Your task to perform on an android device: What's the weather like in Delhi? Image 0: 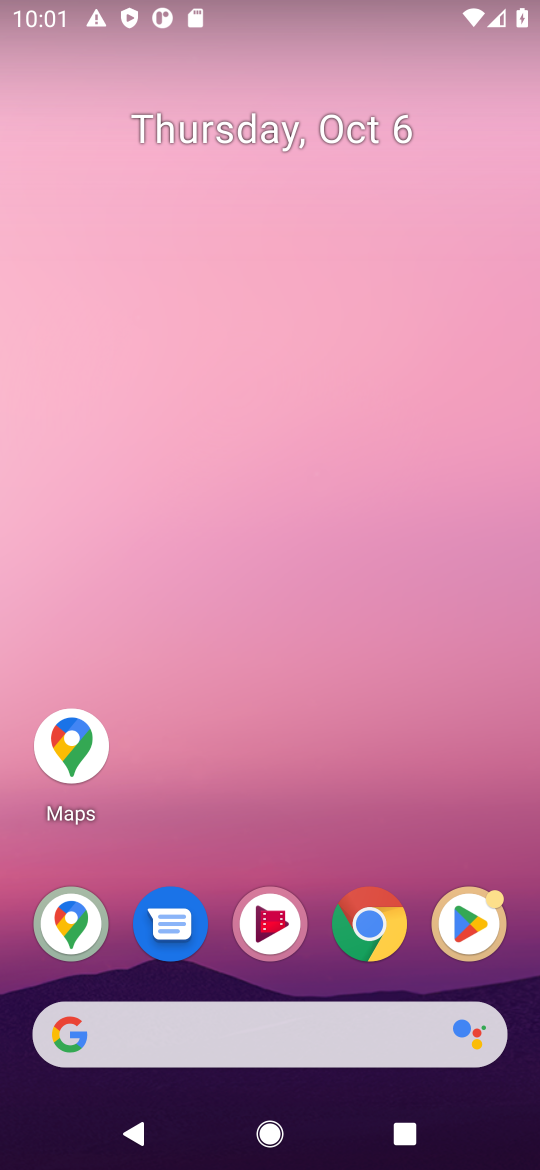
Step 0: click (357, 927)
Your task to perform on an android device: What's the weather like in Delhi? Image 1: 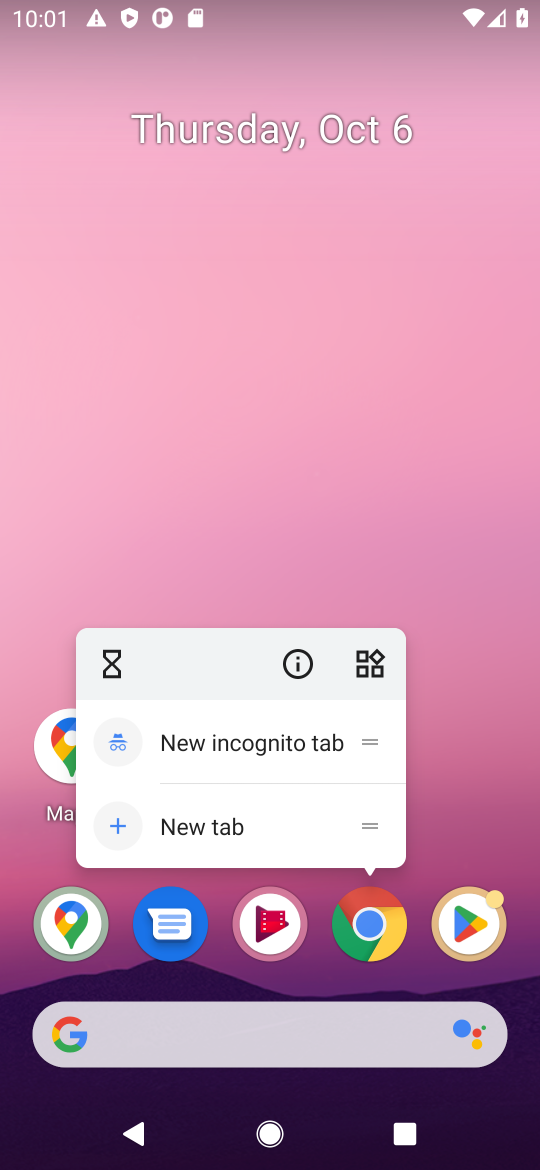
Step 1: click (363, 934)
Your task to perform on an android device: What's the weather like in Delhi? Image 2: 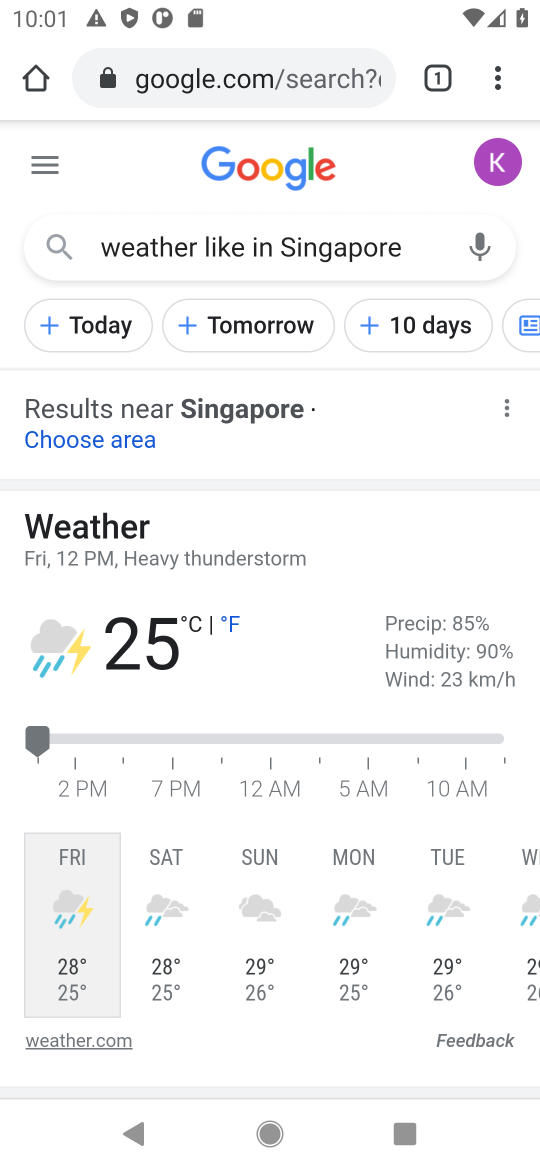
Step 2: click (293, 66)
Your task to perform on an android device: What's the weather like in Delhi? Image 3: 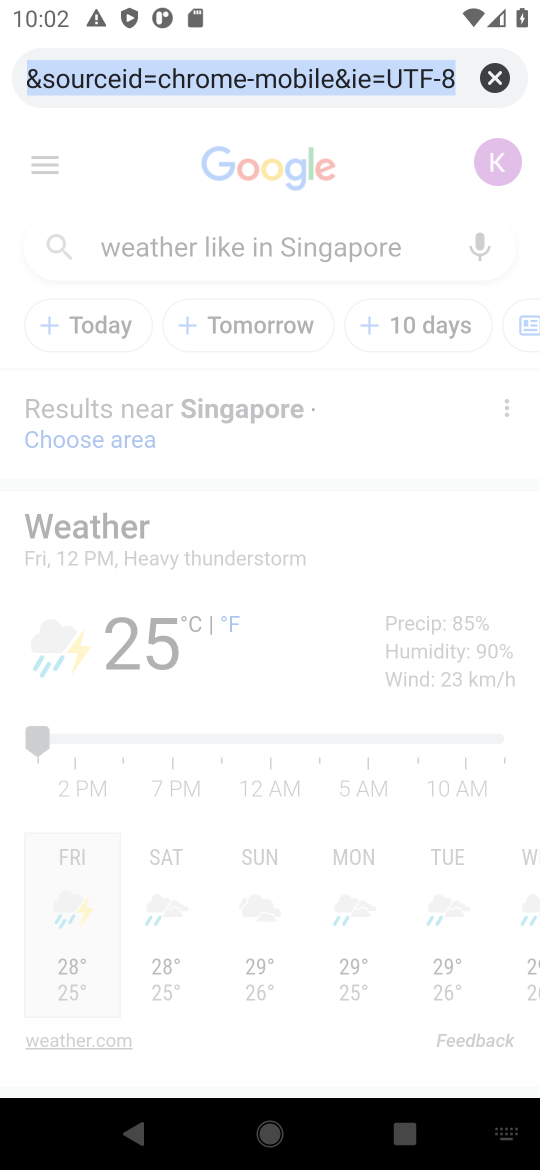
Step 3: click (496, 69)
Your task to perform on an android device: What's the weather like in Delhi? Image 4: 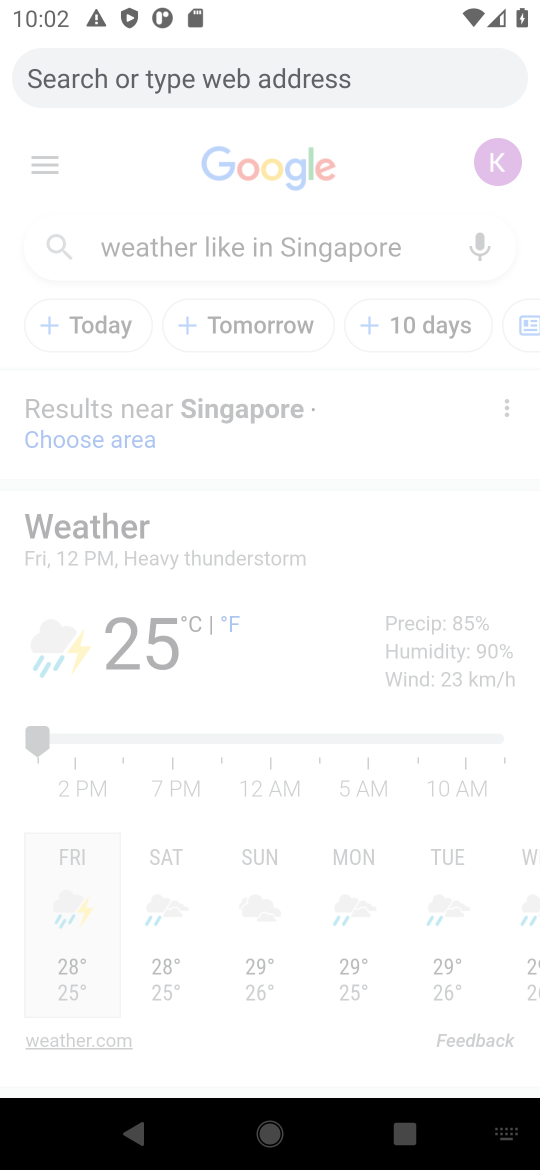
Step 4: click (319, 68)
Your task to perform on an android device: What's the weather like in Delhi? Image 5: 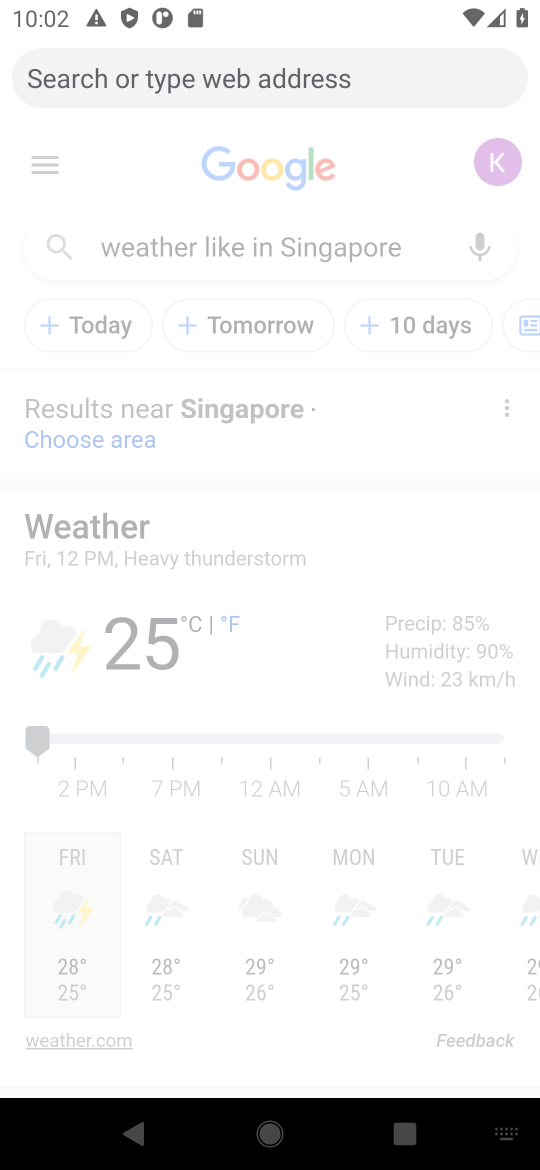
Step 5: type "weather like in Delhi"
Your task to perform on an android device: What's the weather like in Delhi? Image 6: 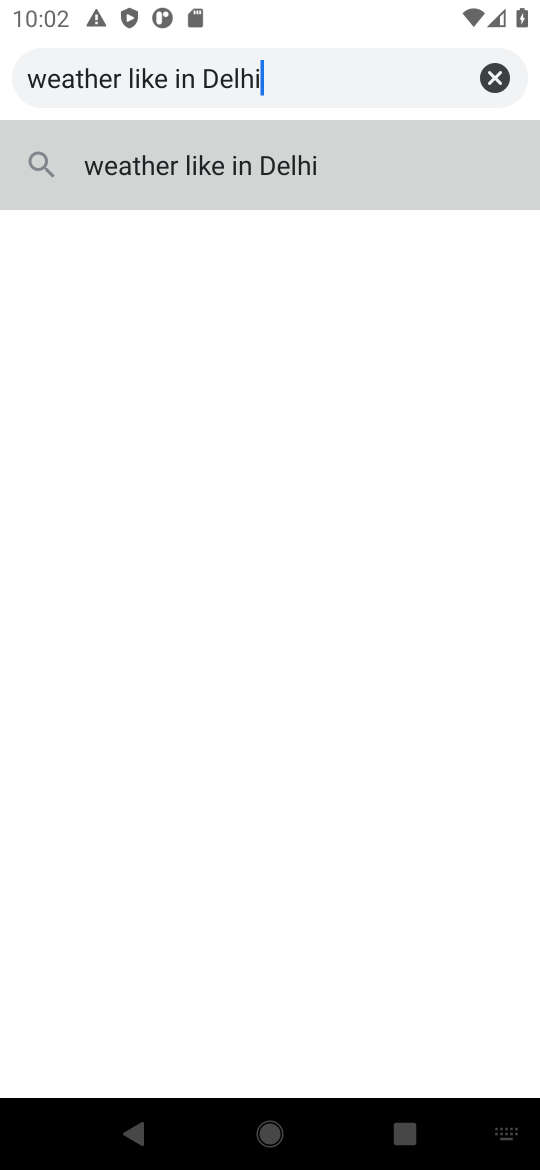
Step 6: click (215, 167)
Your task to perform on an android device: What's the weather like in Delhi? Image 7: 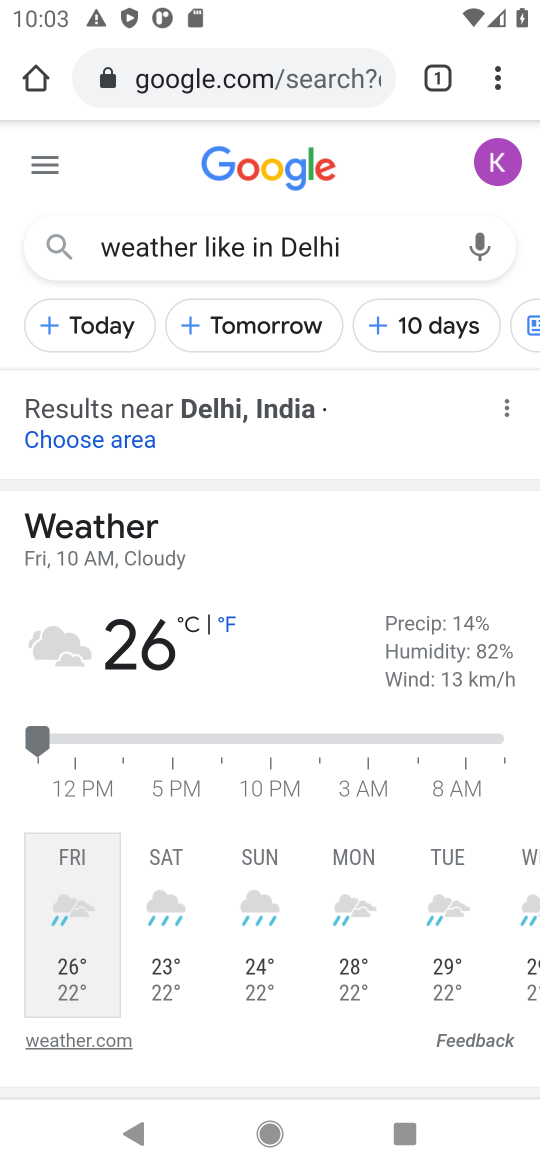
Step 7: task complete